Your task to perform on an android device: Open the map Image 0: 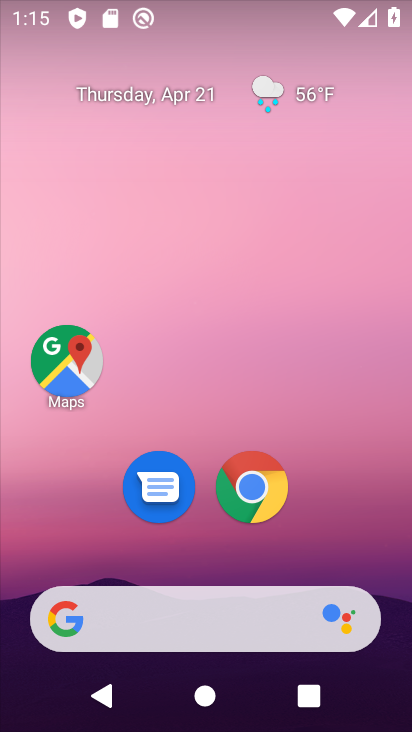
Step 0: click (63, 364)
Your task to perform on an android device: Open the map Image 1: 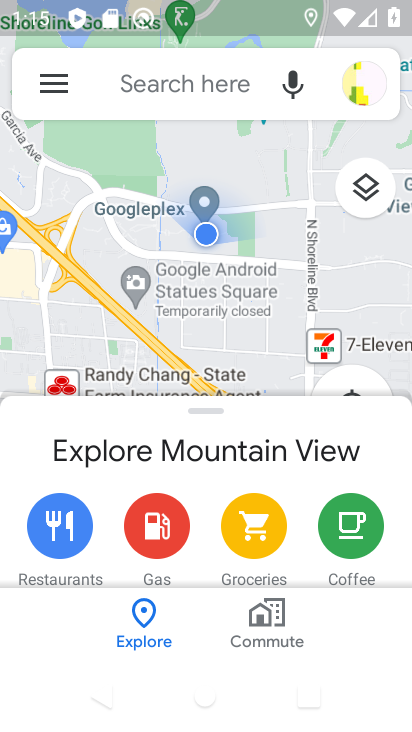
Step 1: task complete